Your task to perform on an android device: Search for floor lamps on article.com Image 0: 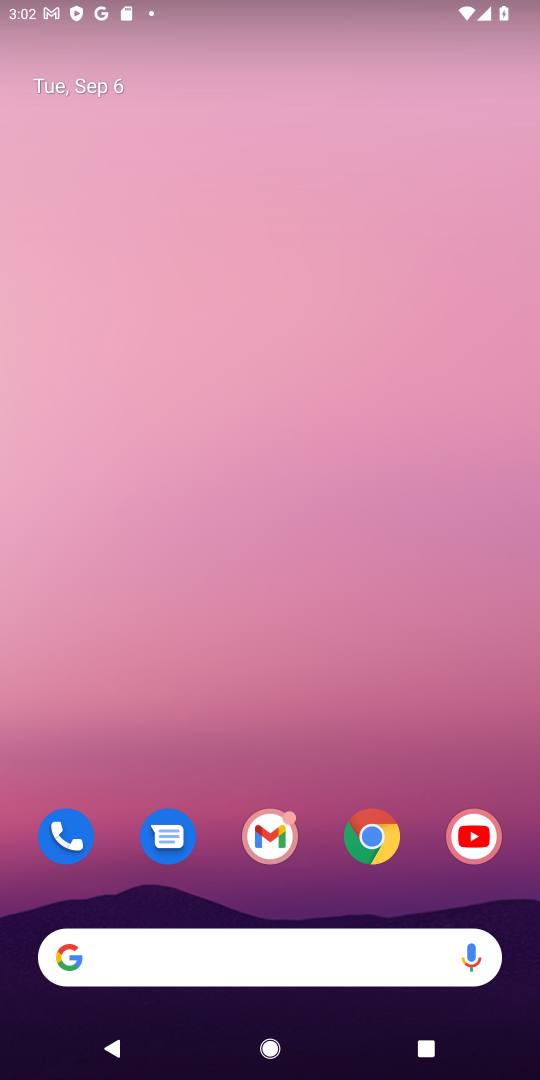
Step 0: click (235, 955)
Your task to perform on an android device: Search for floor lamps on article.com Image 1: 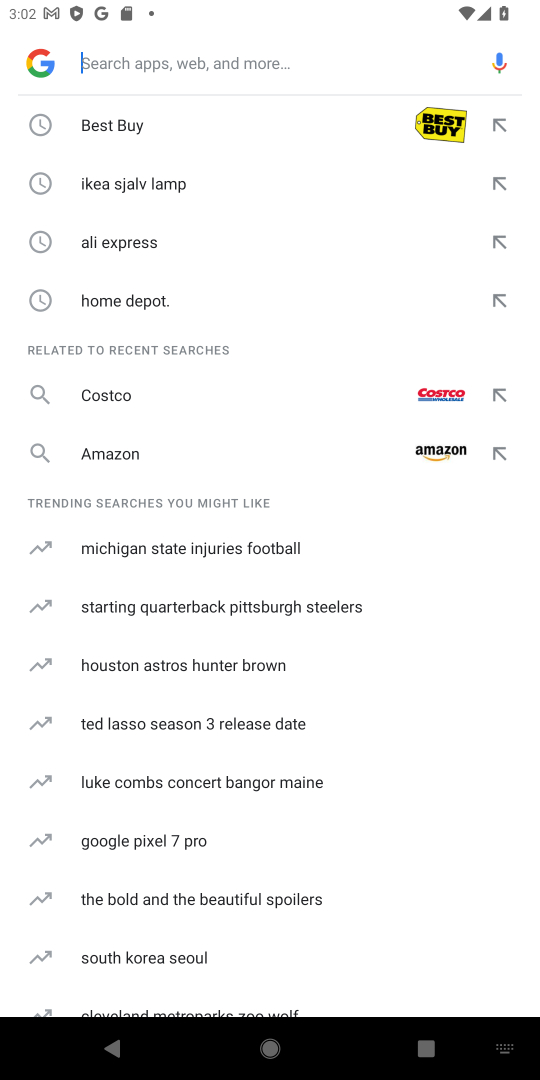
Step 1: type "article.com"
Your task to perform on an android device: Search for floor lamps on article.com Image 2: 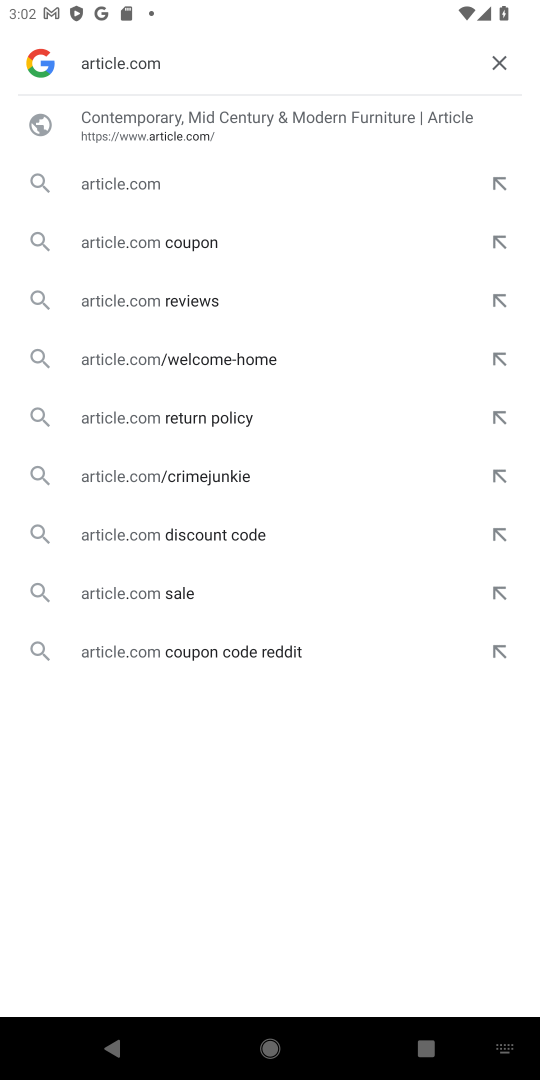
Step 2: click (131, 172)
Your task to perform on an android device: Search for floor lamps on article.com Image 3: 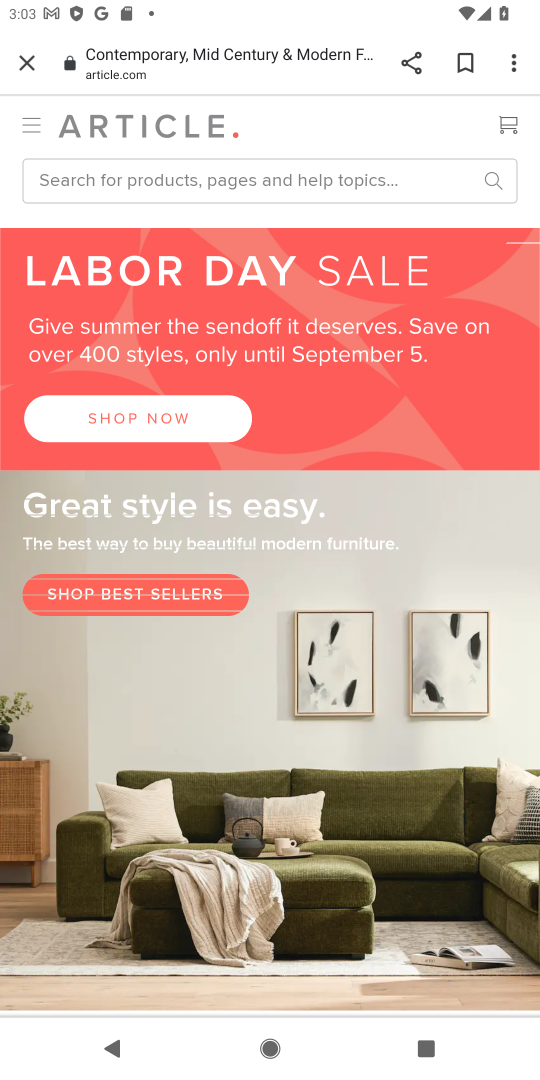
Step 3: click (225, 178)
Your task to perform on an android device: Search for floor lamps on article.com Image 4: 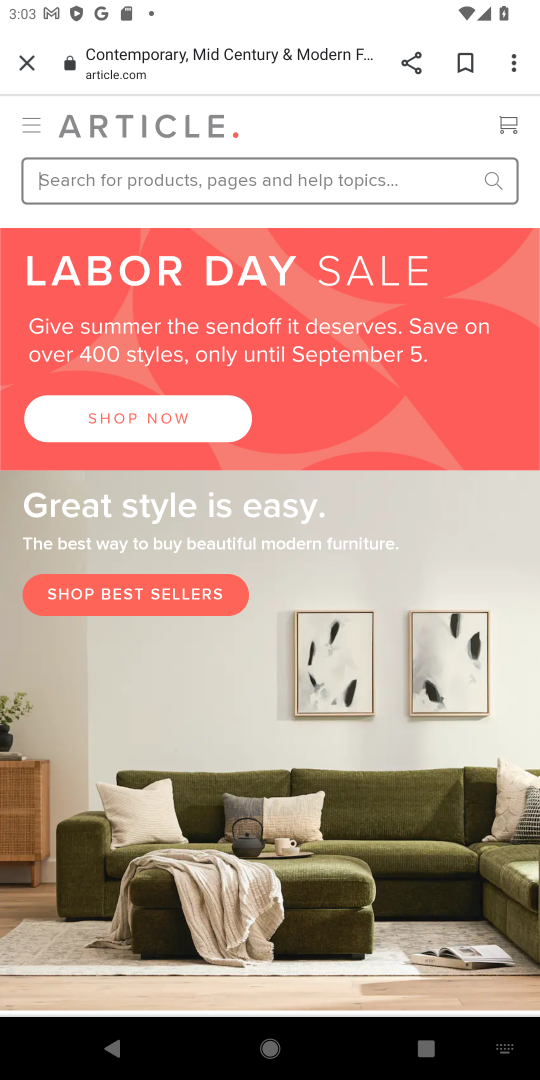
Step 4: click (201, 173)
Your task to perform on an android device: Search for floor lamps on article.com Image 5: 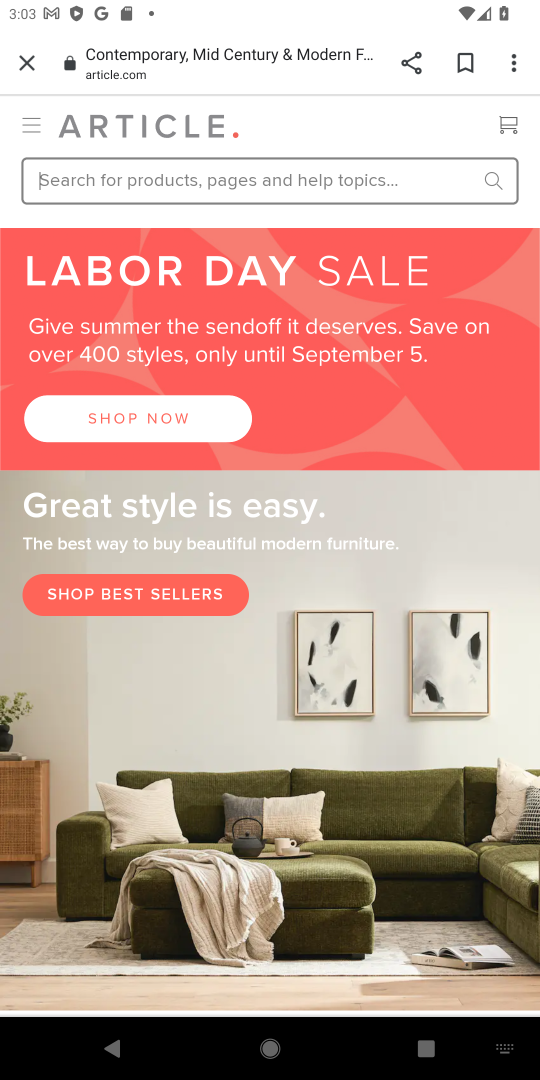
Step 5: type "floor lamps"
Your task to perform on an android device: Search for floor lamps on article.com Image 6: 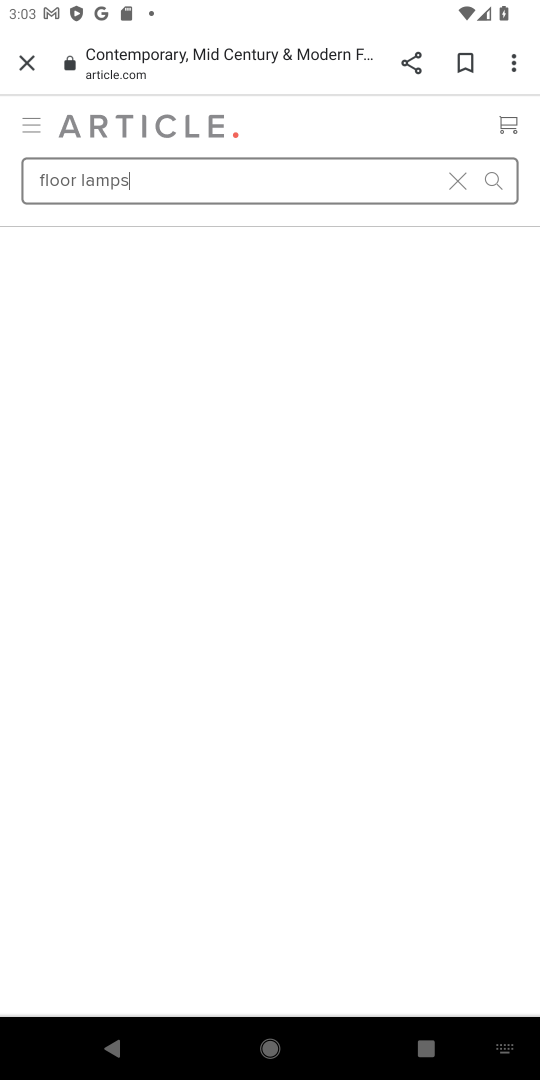
Step 6: click (493, 176)
Your task to perform on an android device: Search for floor lamps on article.com Image 7: 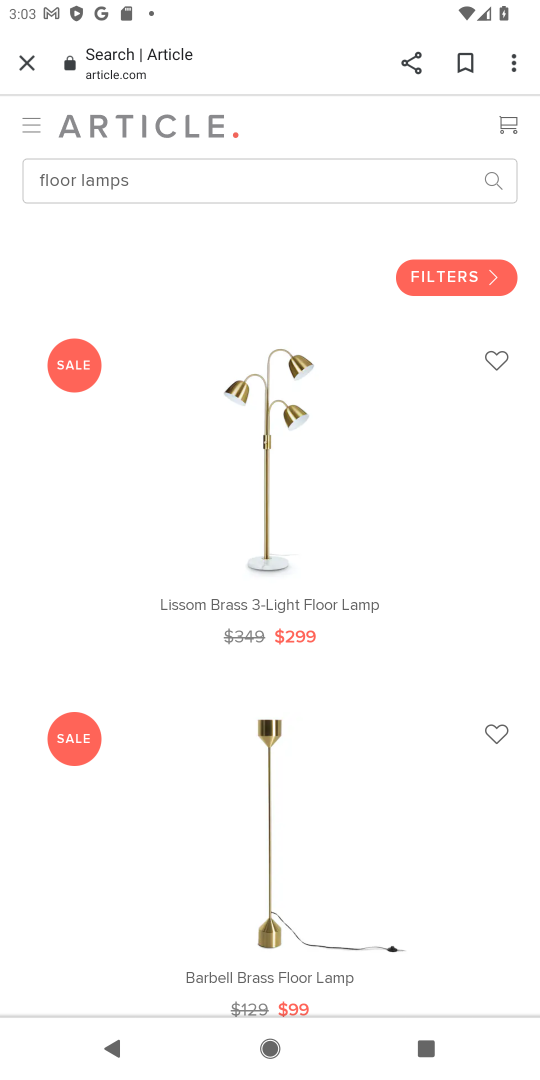
Step 7: task complete